Your task to perform on an android device: Go to ESPN.com Image 0: 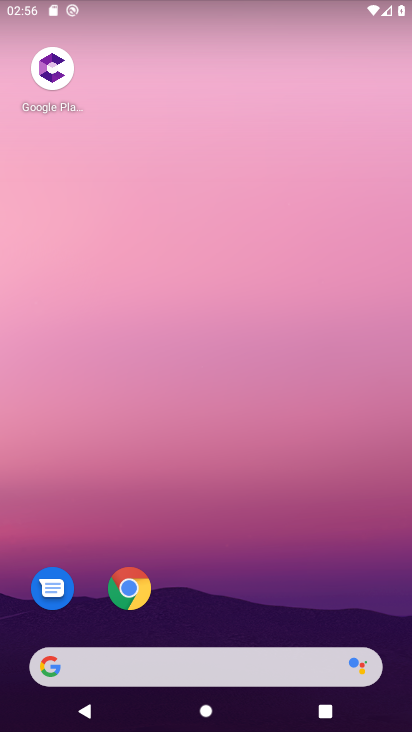
Step 0: click (143, 581)
Your task to perform on an android device: Go to ESPN.com Image 1: 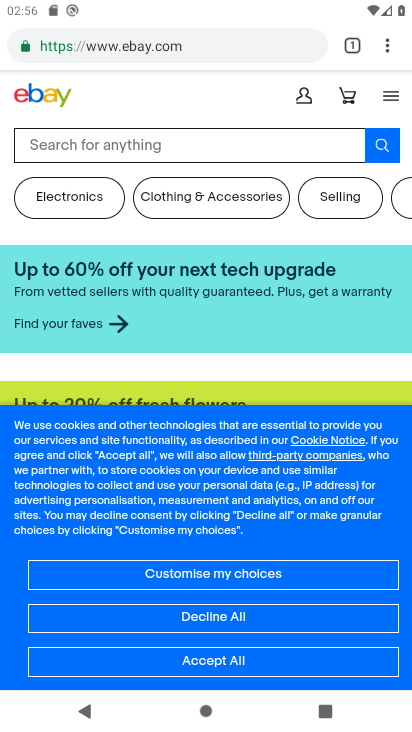
Step 1: click (353, 44)
Your task to perform on an android device: Go to ESPN.com Image 2: 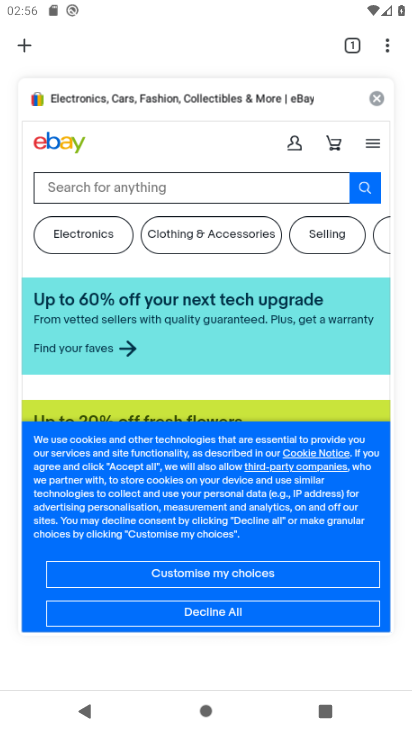
Step 2: click (30, 40)
Your task to perform on an android device: Go to ESPN.com Image 3: 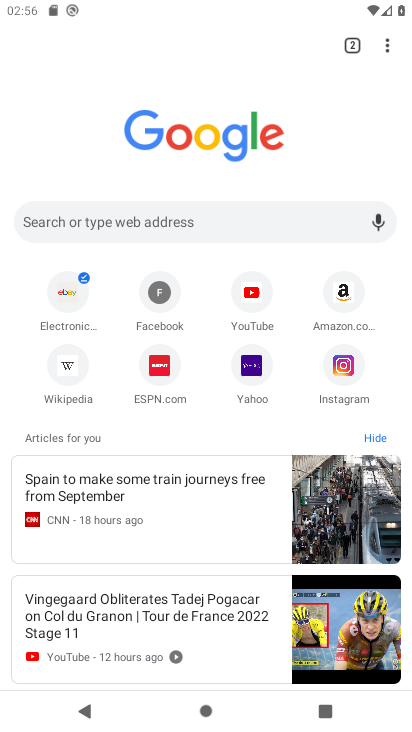
Step 3: click (166, 378)
Your task to perform on an android device: Go to ESPN.com Image 4: 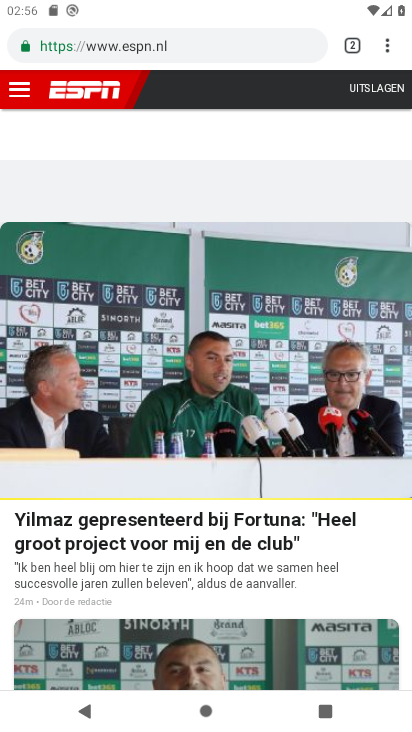
Step 4: task complete